Your task to perform on an android device: Open CNN.com Image 0: 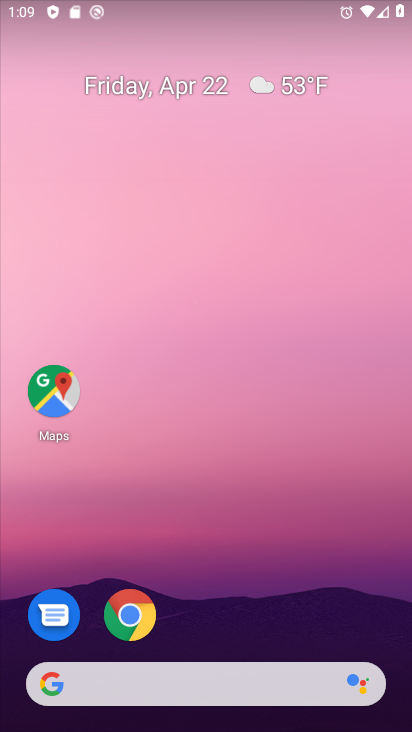
Step 0: click (134, 617)
Your task to perform on an android device: Open CNN.com Image 1: 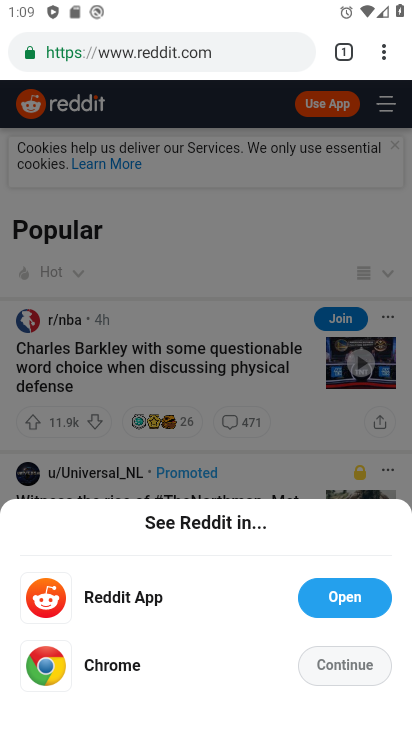
Step 1: click (146, 58)
Your task to perform on an android device: Open CNN.com Image 2: 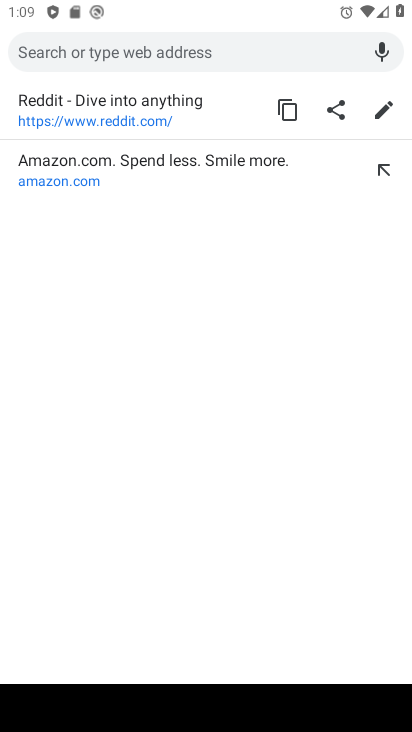
Step 2: type "cnn.com"
Your task to perform on an android device: Open CNN.com Image 3: 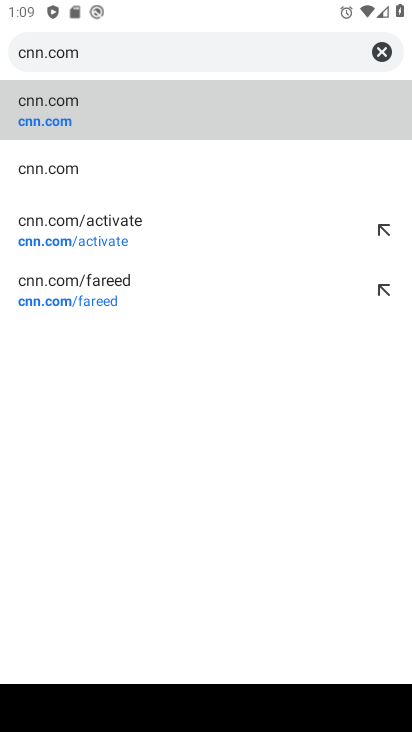
Step 3: click (41, 121)
Your task to perform on an android device: Open CNN.com Image 4: 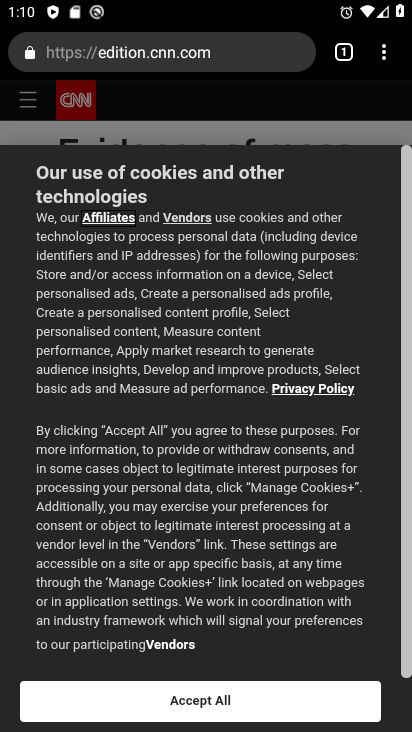
Step 4: task complete